Your task to perform on an android device: turn off priority inbox in the gmail app Image 0: 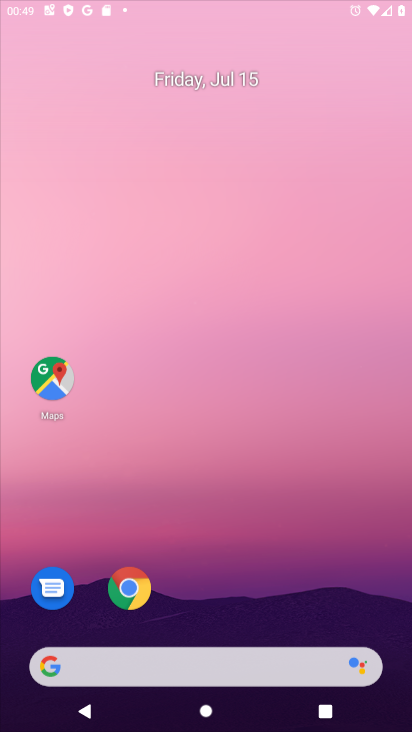
Step 0: press home button
Your task to perform on an android device: turn off priority inbox in the gmail app Image 1: 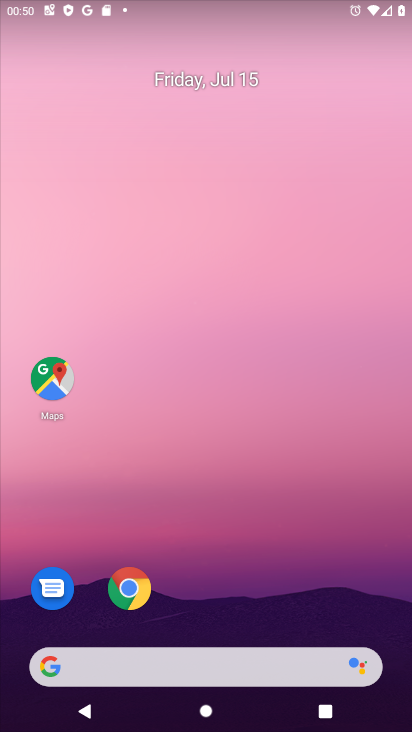
Step 1: drag from (177, 657) to (323, 57)
Your task to perform on an android device: turn off priority inbox in the gmail app Image 2: 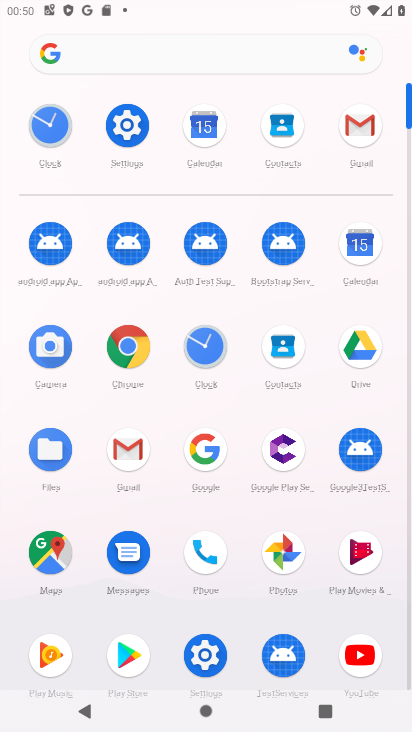
Step 2: click (359, 139)
Your task to perform on an android device: turn off priority inbox in the gmail app Image 3: 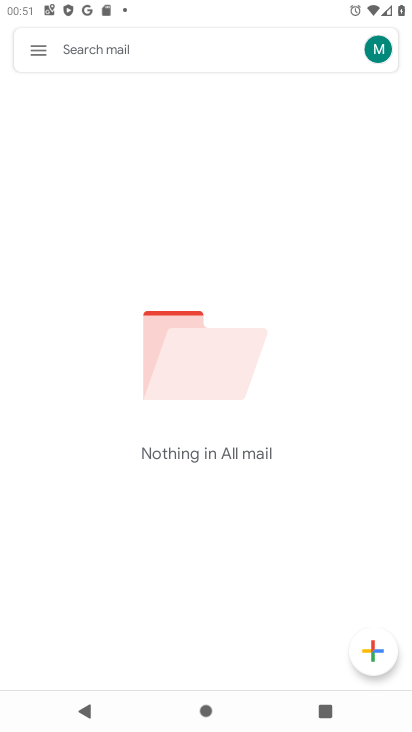
Step 3: click (38, 50)
Your task to perform on an android device: turn off priority inbox in the gmail app Image 4: 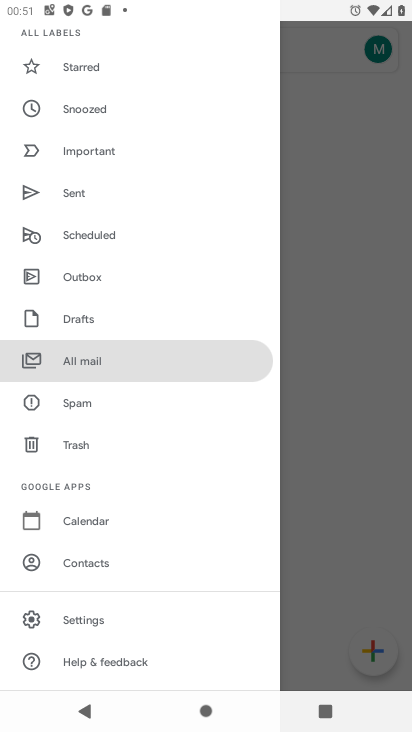
Step 4: click (77, 621)
Your task to perform on an android device: turn off priority inbox in the gmail app Image 5: 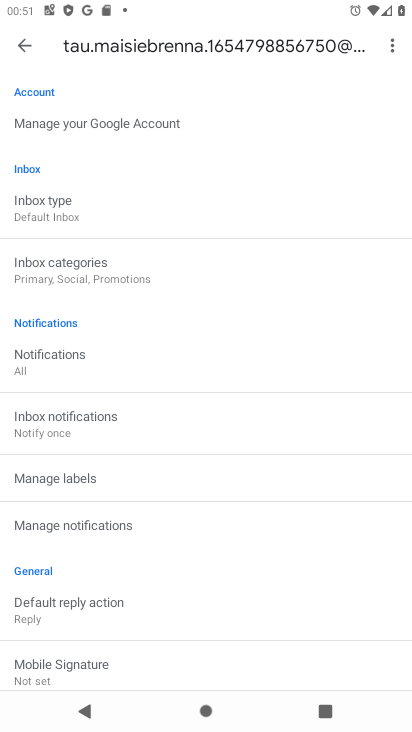
Step 5: click (60, 215)
Your task to perform on an android device: turn off priority inbox in the gmail app Image 6: 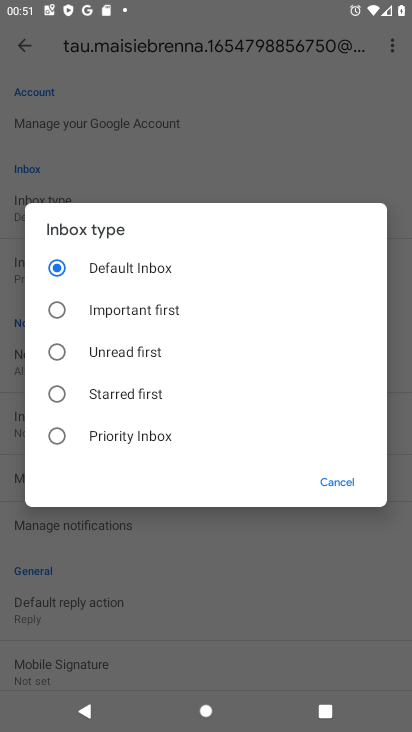
Step 6: click (61, 432)
Your task to perform on an android device: turn off priority inbox in the gmail app Image 7: 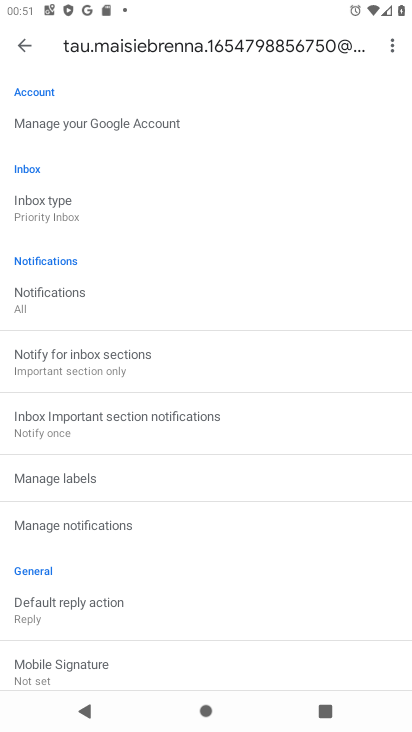
Step 7: task complete